Your task to perform on an android device: Go to location settings Image 0: 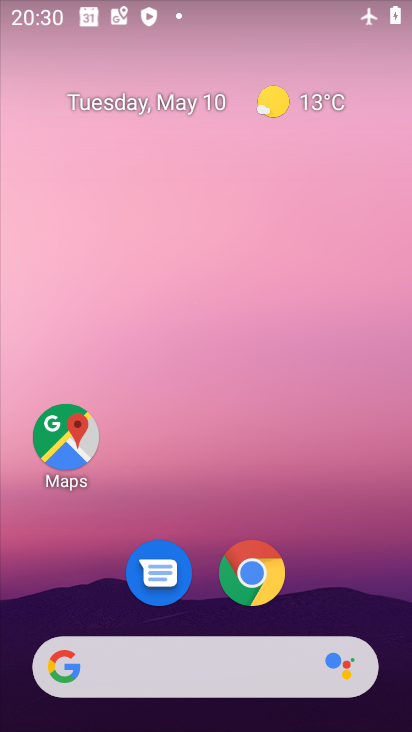
Step 0: drag from (374, 570) to (331, 7)
Your task to perform on an android device: Go to location settings Image 1: 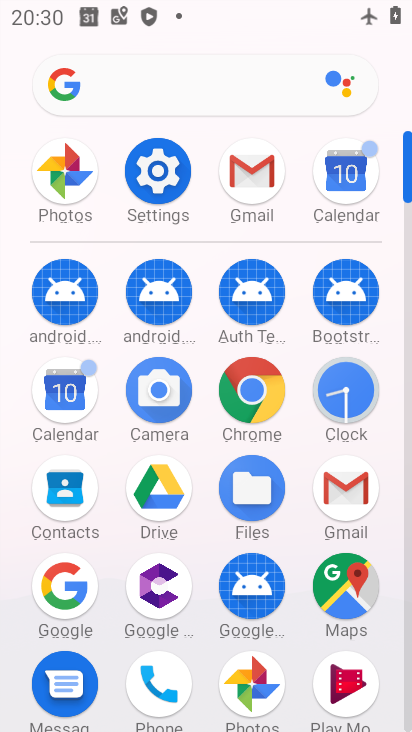
Step 1: click (148, 171)
Your task to perform on an android device: Go to location settings Image 2: 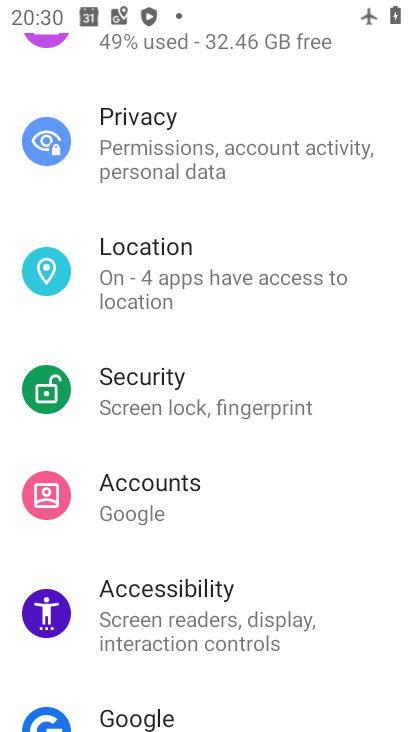
Step 2: click (126, 291)
Your task to perform on an android device: Go to location settings Image 3: 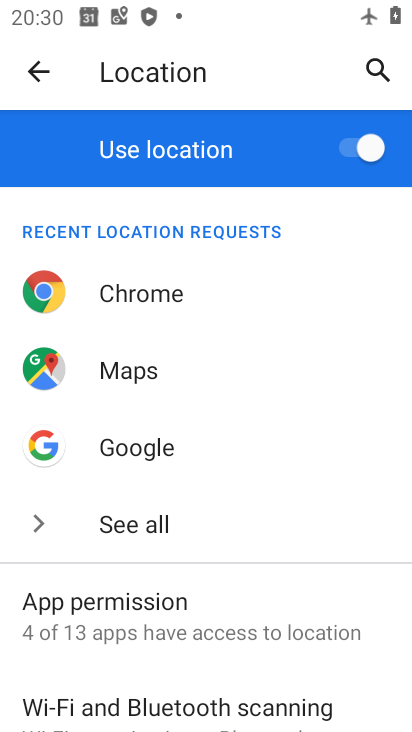
Step 3: task complete